Your task to perform on an android device: Turn off the flashlight Image 0: 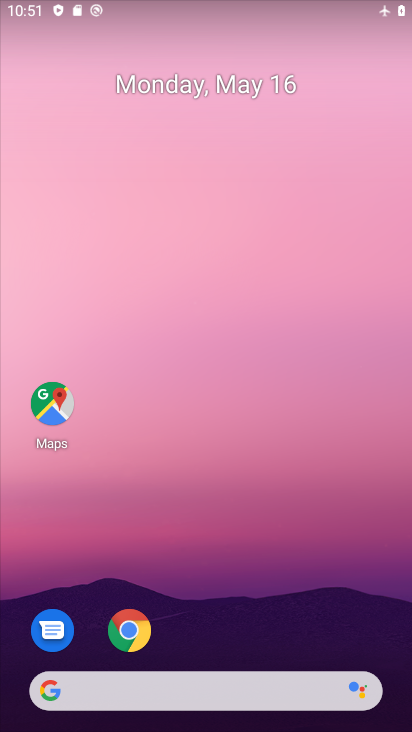
Step 0: drag from (264, 7) to (308, 502)
Your task to perform on an android device: Turn off the flashlight Image 1: 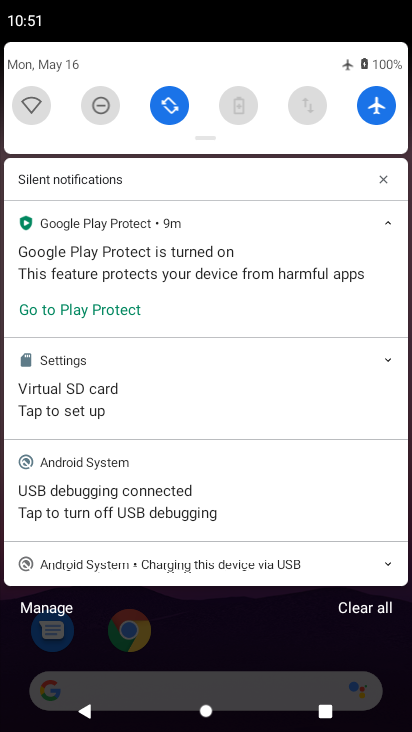
Step 1: drag from (206, 120) to (189, 517)
Your task to perform on an android device: Turn off the flashlight Image 2: 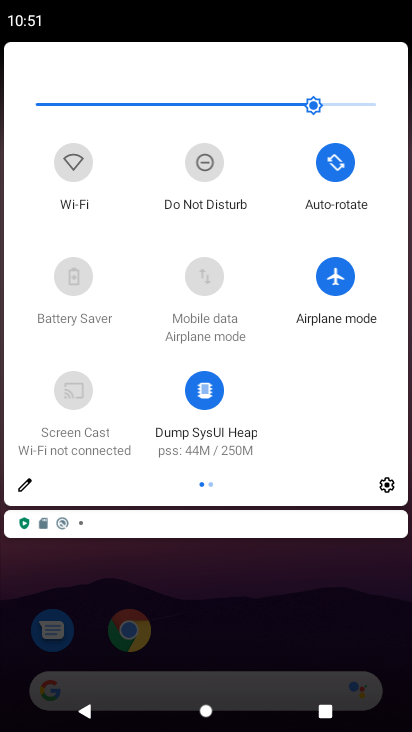
Step 2: click (31, 488)
Your task to perform on an android device: Turn off the flashlight Image 3: 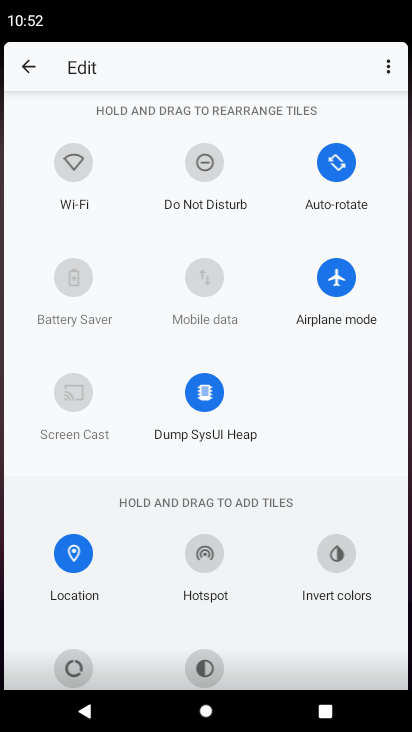
Step 3: task complete